Your task to perform on an android device: Do I have any events this weekend? Image 0: 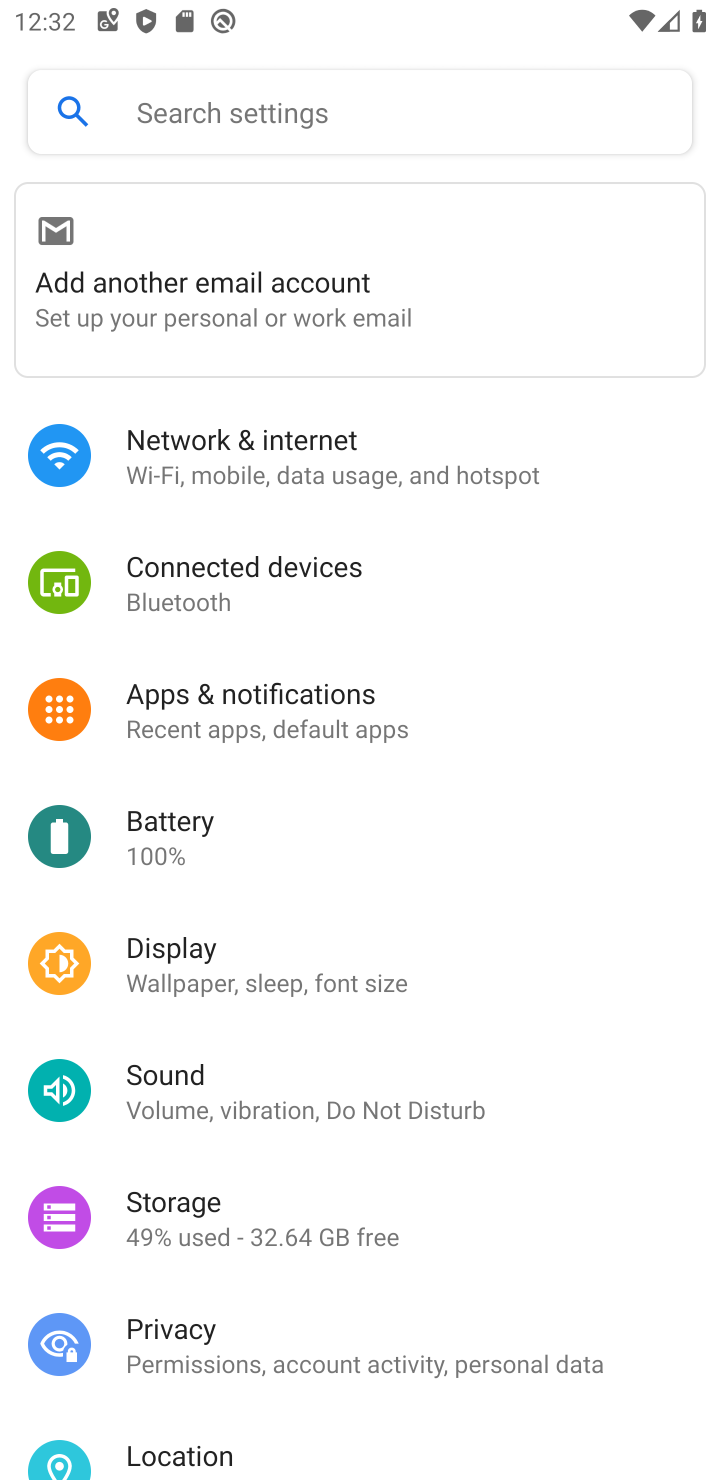
Step 0: press home button
Your task to perform on an android device: Do I have any events this weekend? Image 1: 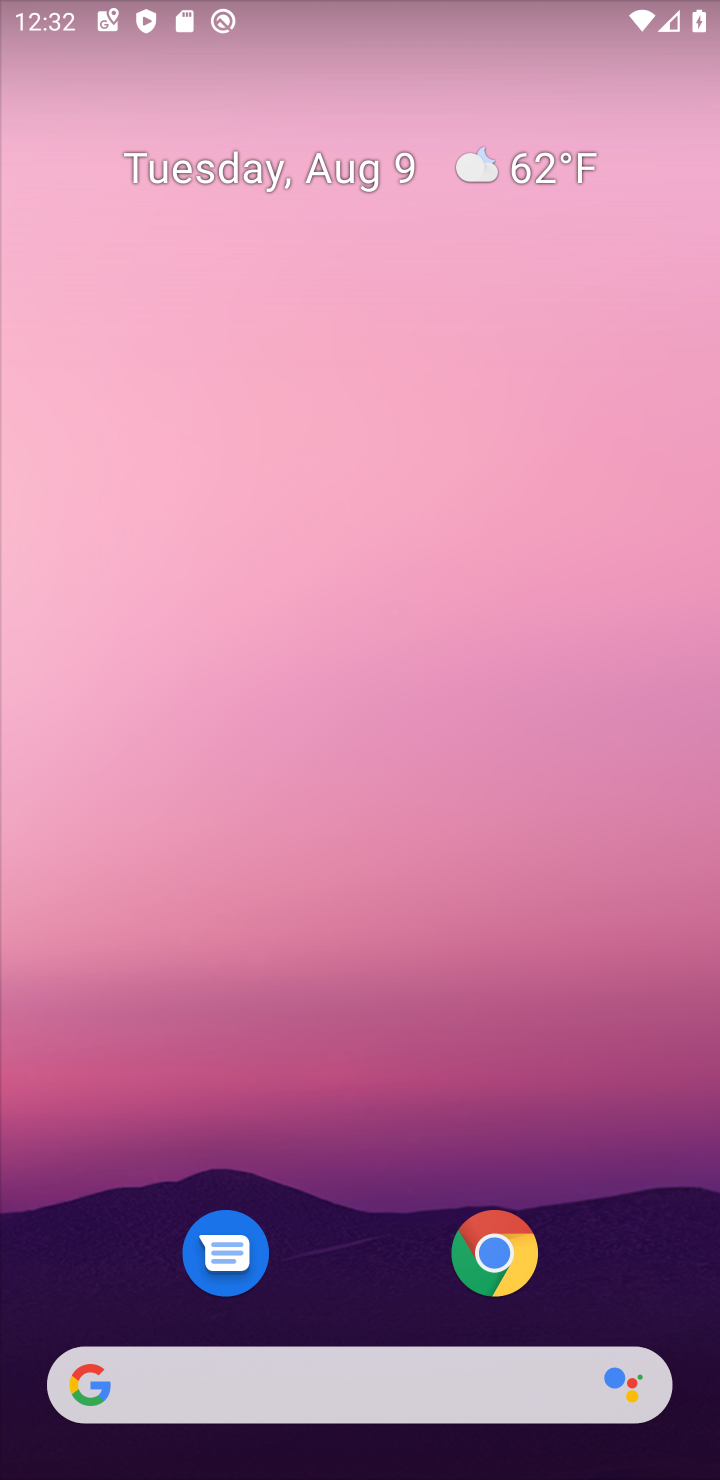
Step 1: drag from (639, 1080) to (384, 28)
Your task to perform on an android device: Do I have any events this weekend? Image 2: 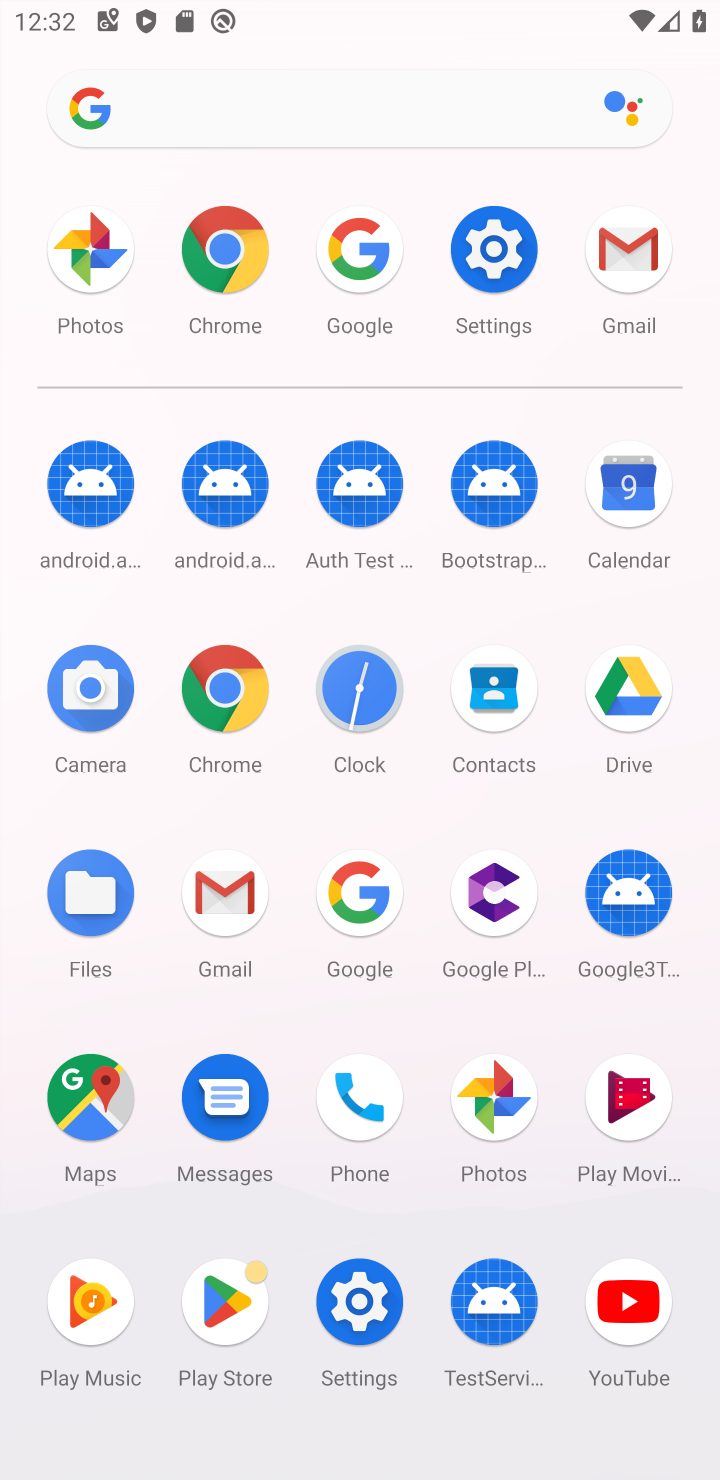
Step 2: click (630, 579)
Your task to perform on an android device: Do I have any events this weekend? Image 3: 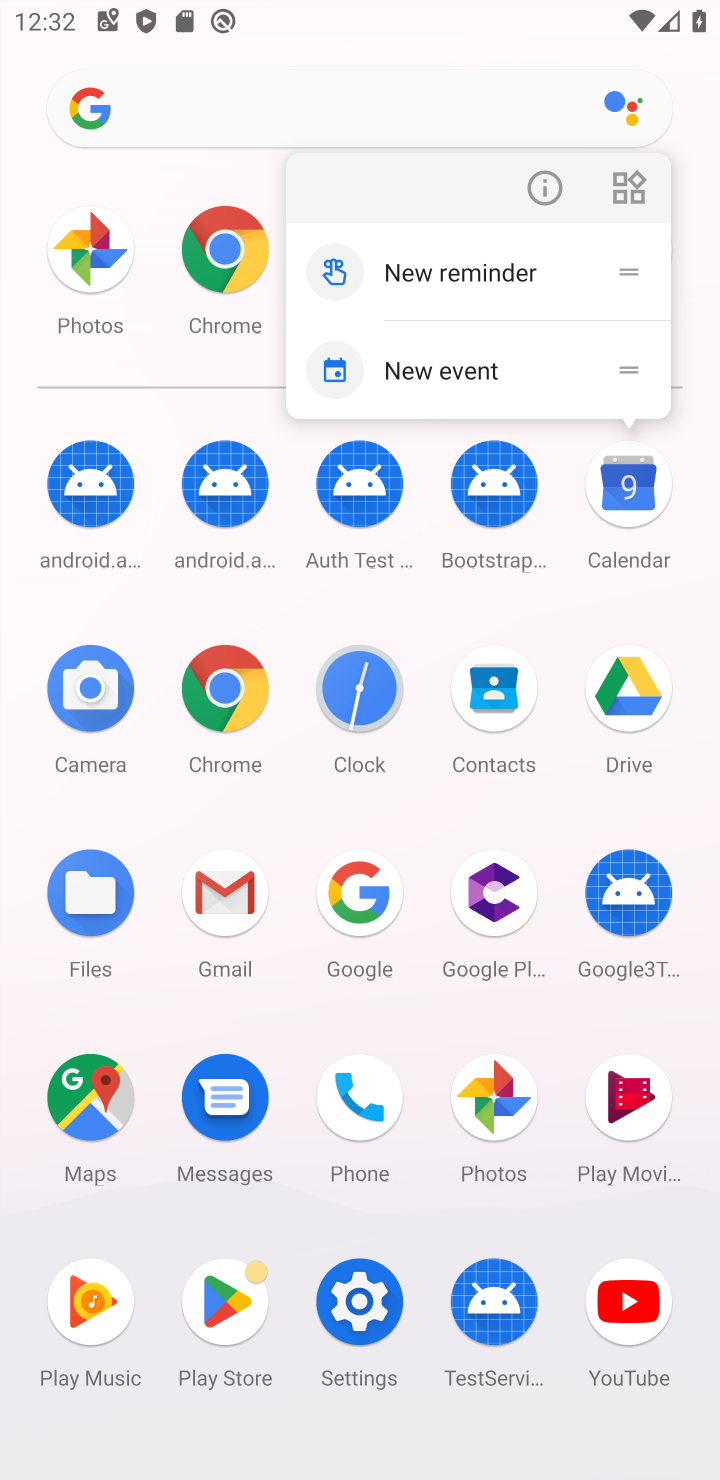
Step 3: click (630, 503)
Your task to perform on an android device: Do I have any events this weekend? Image 4: 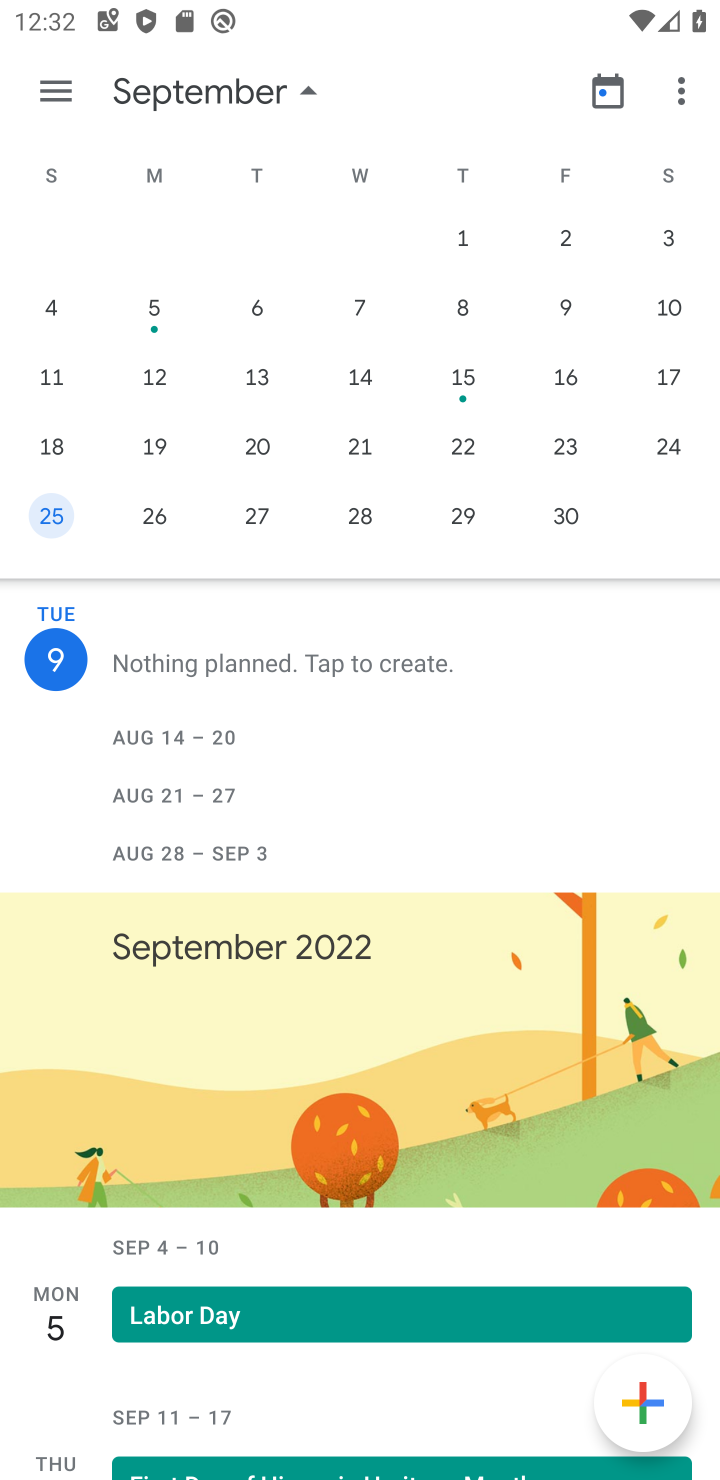
Step 4: task complete